Your task to perform on an android device: Open battery settings Image 0: 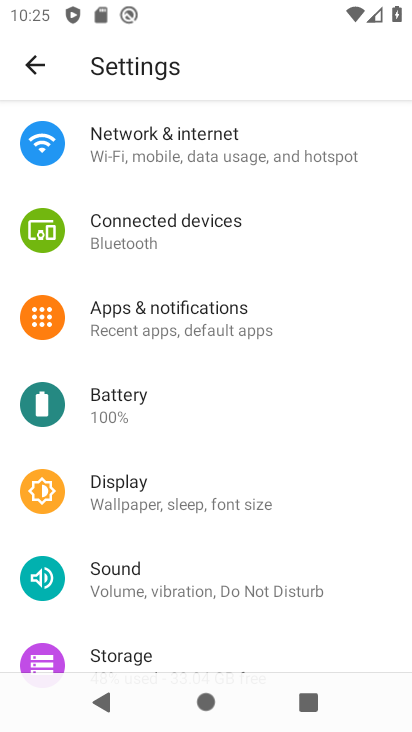
Step 0: click (264, 408)
Your task to perform on an android device: Open battery settings Image 1: 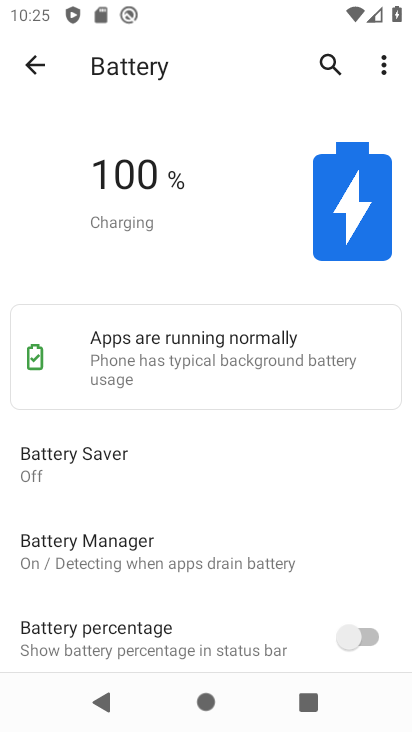
Step 1: task complete